Your task to perform on an android device: Show the shopping cart on newegg.com. Add duracell triple a to the cart on newegg.com, then select checkout. Image 0: 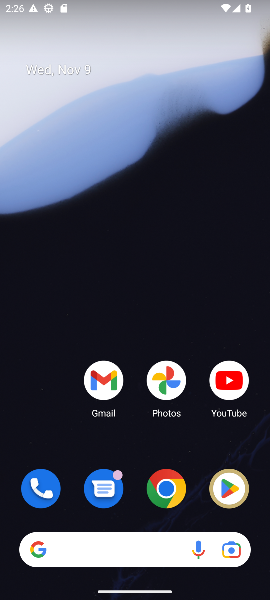
Step 0: drag from (138, 453) to (171, 118)
Your task to perform on an android device: Show the shopping cart on newegg.com. Add duracell triple a to the cart on newegg.com, then select checkout. Image 1: 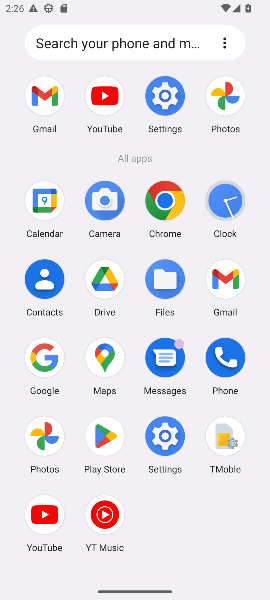
Step 1: click (161, 200)
Your task to perform on an android device: Show the shopping cart on newegg.com. Add duracell triple a to the cart on newegg.com, then select checkout. Image 2: 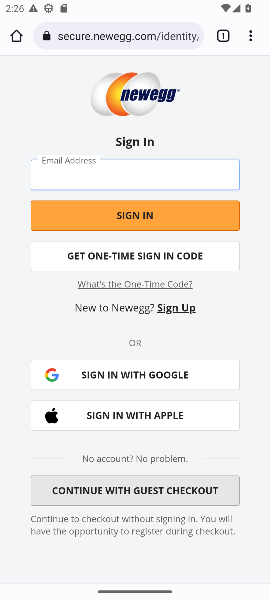
Step 2: click (147, 32)
Your task to perform on an android device: Show the shopping cart on newegg.com. Add duracell triple a to the cart on newegg.com, then select checkout. Image 3: 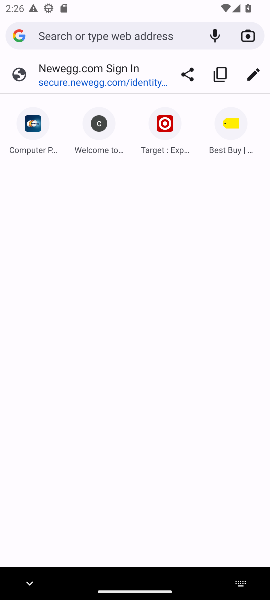
Step 3: type "newegg.com"
Your task to perform on an android device: Show the shopping cart on newegg.com. Add duracell triple a to the cart on newegg.com, then select checkout. Image 4: 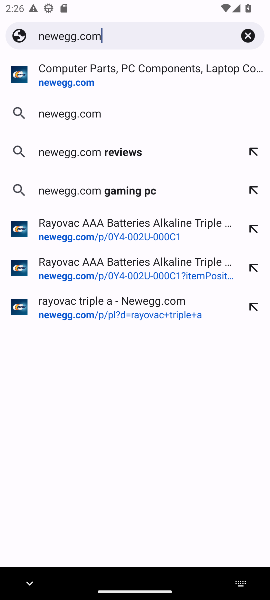
Step 4: press enter
Your task to perform on an android device: Show the shopping cart on newegg.com. Add duracell triple a to the cart on newegg.com, then select checkout. Image 5: 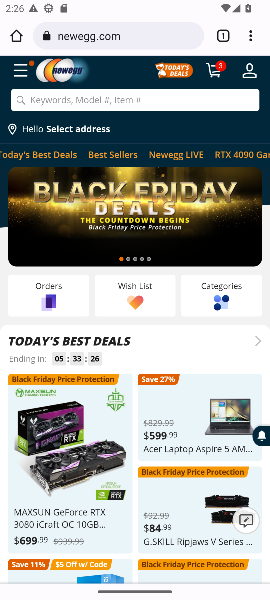
Step 5: click (220, 70)
Your task to perform on an android device: Show the shopping cart on newegg.com. Add duracell triple a to the cart on newegg.com, then select checkout. Image 6: 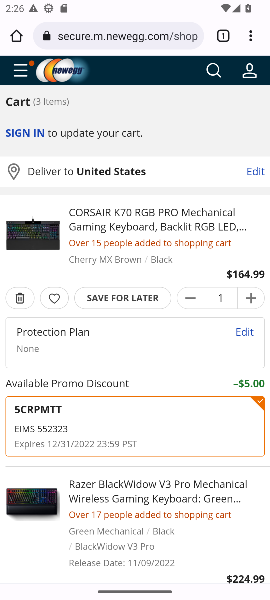
Step 6: drag from (144, 122) to (157, 161)
Your task to perform on an android device: Show the shopping cart on newegg.com. Add duracell triple a to the cart on newegg.com, then select checkout. Image 7: 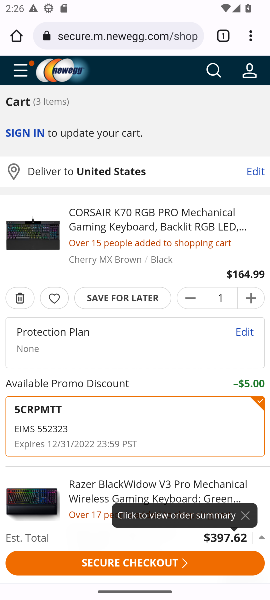
Step 7: click (218, 72)
Your task to perform on an android device: Show the shopping cart on newegg.com. Add duracell triple a to the cart on newegg.com, then select checkout. Image 8: 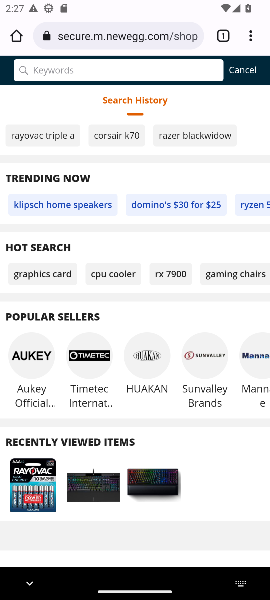
Step 8: type "add duracell triple"
Your task to perform on an android device: Show the shopping cart on newegg.com. Add duracell triple a to the cart on newegg.com, then select checkout. Image 9: 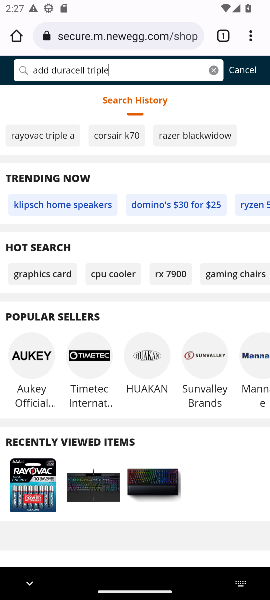
Step 9: press enter
Your task to perform on an android device: Show the shopping cart on newegg.com. Add duracell triple a to the cart on newegg.com, then select checkout. Image 10: 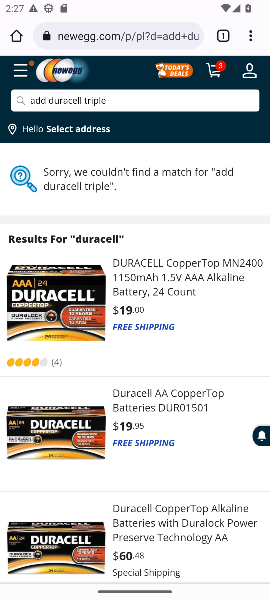
Step 10: click (81, 299)
Your task to perform on an android device: Show the shopping cart on newegg.com. Add duracell triple a to the cart on newegg.com, then select checkout. Image 11: 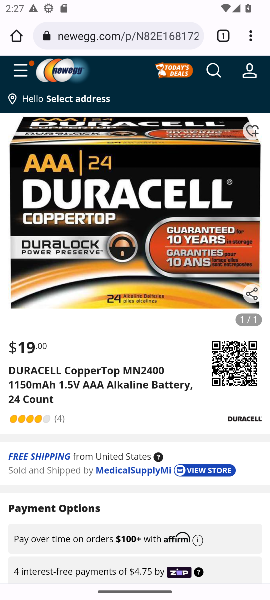
Step 11: drag from (119, 486) to (137, 369)
Your task to perform on an android device: Show the shopping cart on newegg.com. Add duracell triple a to the cart on newegg.com, then select checkout. Image 12: 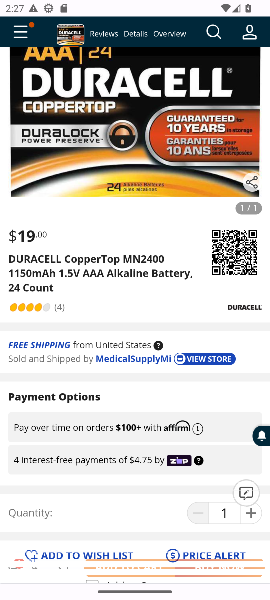
Step 12: drag from (159, 487) to (148, 290)
Your task to perform on an android device: Show the shopping cart on newegg.com. Add duracell triple a to the cart on newegg.com, then select checkout. Image 13: 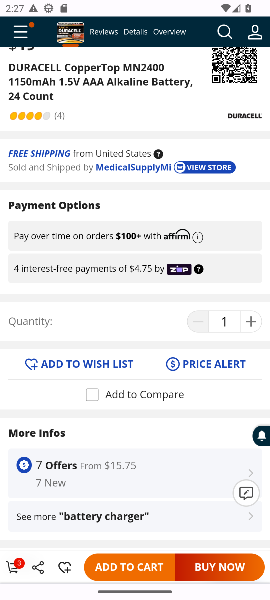
Step 13: click (128, 570)
Your task to perform on an android device: Show the shopping cart on newegg.com. Add duracell triple a to the cart on newegg.com, then select checkout. Image 14: 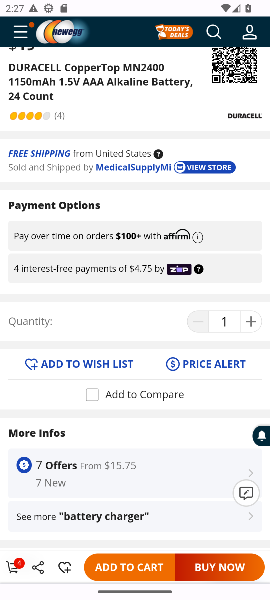
Step 14: click (15, 570)
Your task to perform on an android device: Show the shopping cart on newegg.com. Add duracell triple a to the cart on newegg.com, then select checkout. Image 15: 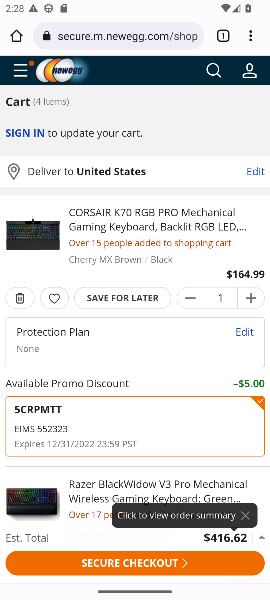
Step 15: click (148, 558)
Your task to perform on an android device: Show the shopping cart on newegg.com. Add duracell triple a to the cart on newegg.com, then select checkout. Image 16: 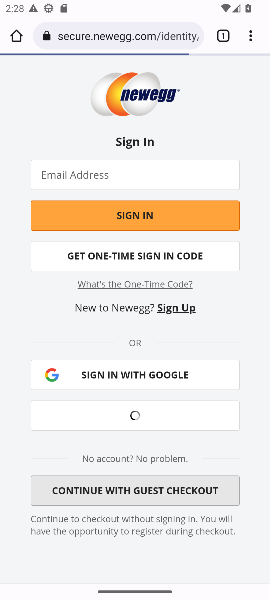
Step 16: click (156, 565)
Your task to perform on an android device: Show the shopping cart on newegg.com. Add duracell triple a to the cart on newegg.com, then select checkout. Image 17: 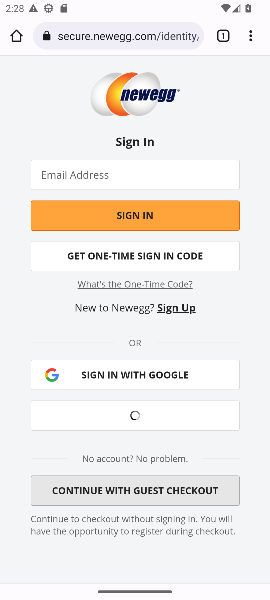
Step 17: task complete